Your task to perform on an android device: Go to Reddit.com Image 0: 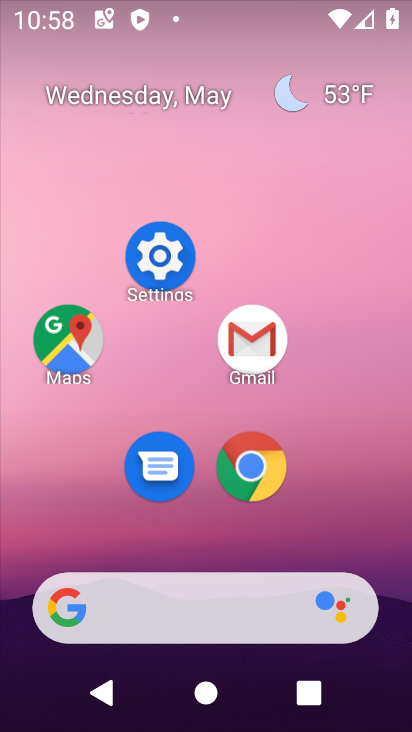
Step 0: drag from (219, 528) to (303, 111)
Your task to perform on an android device: Go to Reddit.com Image 1: 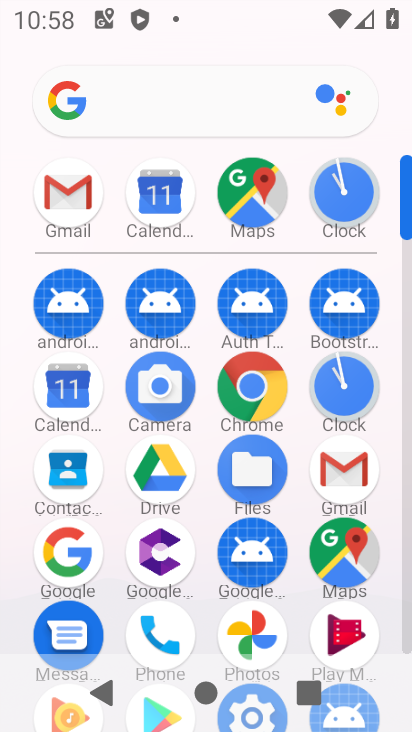
Step 1: click (180, 106)
Your task to perform on an android device: Go to Reddit.com Image 2: 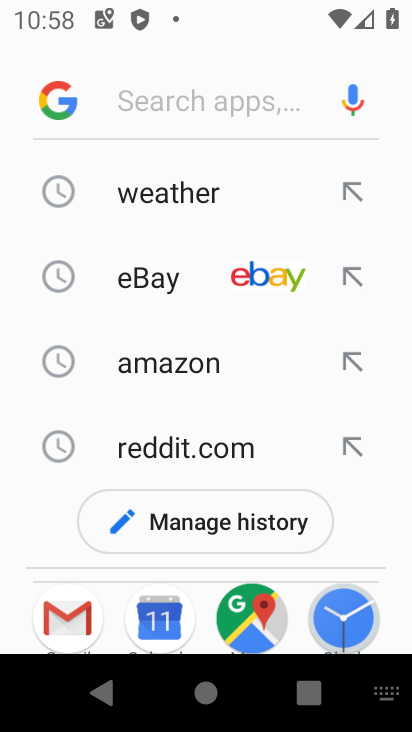
Step 2: type "redd"
Your task to perform on an android device: Go to Reddit.com Image 3: 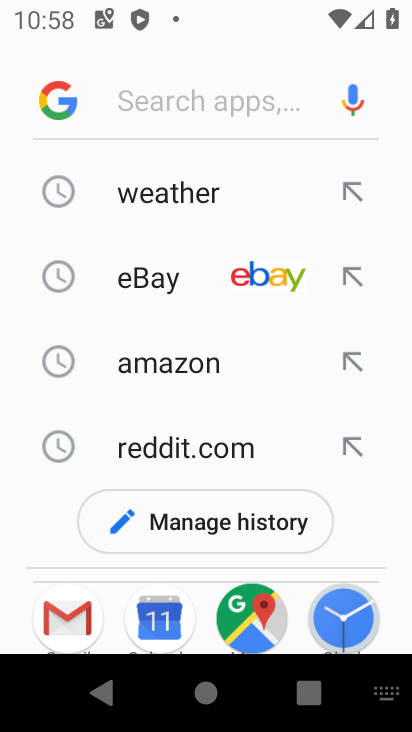
Step 3: click (197, 434)
Your task to perform on an android device: Go to Reddit.com Image 4: 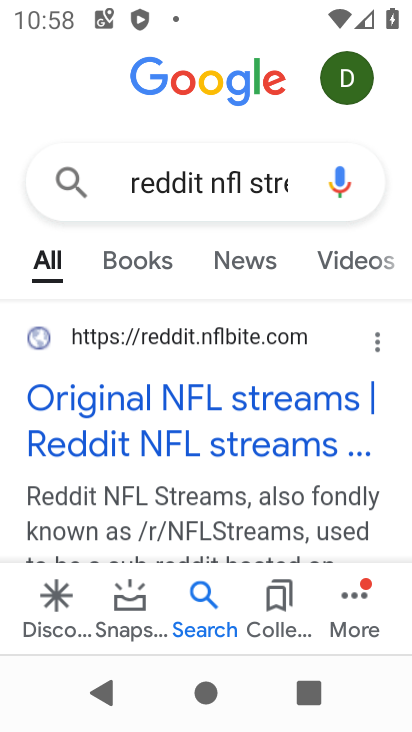
Step 4: click (180, 429)
Your task to perform on an android device: Go to Reddit.com Image 5: 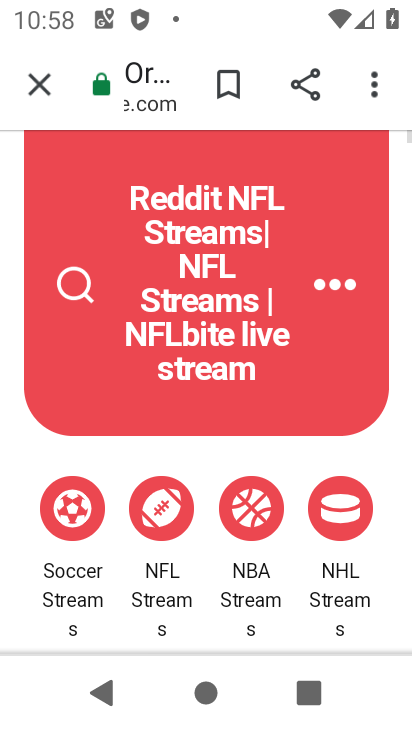
Step 5: task complete